Your task to perform on an android device: allow notifications from all sites in the chrome app Image 0: 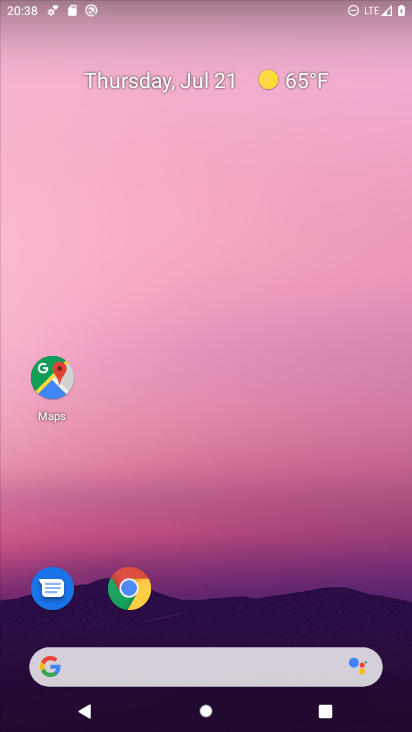
Step 0: drag from (157, 411) to (104, 55)
Your task to perform on an android device: allow notifications from all sites in the chrome app Image 1: 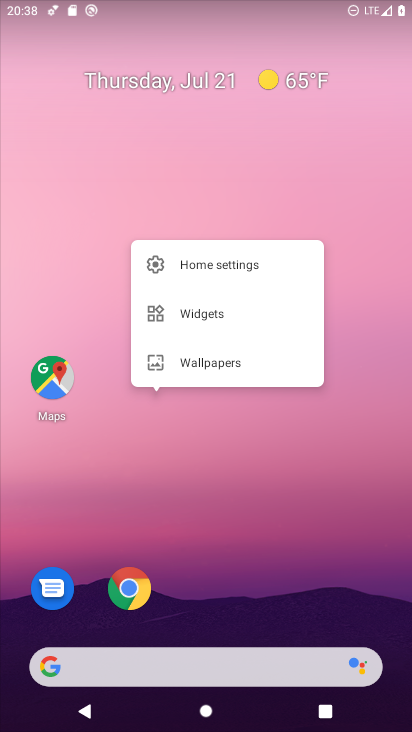
Step 1: click (171, 574)
Your task to perform on an android device: allow notifications from all sites in the chrome app Image 2: 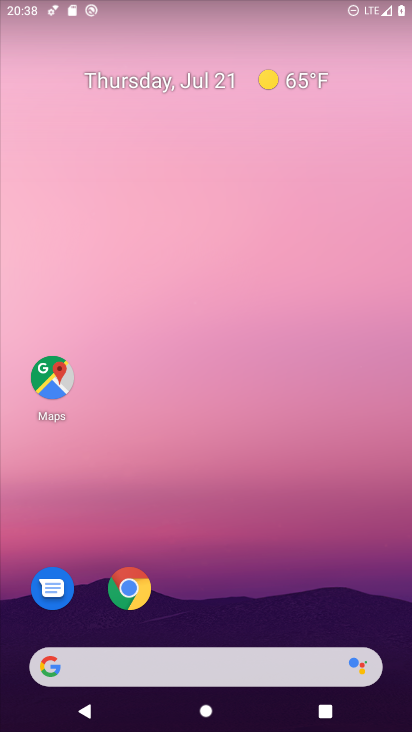
Step 2: drag from (239, 636) to (204, 65)
Your task to perform on an android device: allow notifications from all sites in the chrome app Image 3: 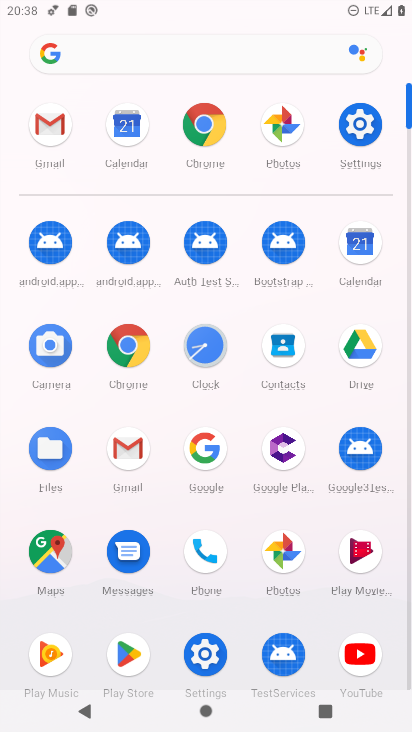
Step 3: click (219, 152)
Your task to perform on an android device: allow notifications from all sites in the chrome app Image 4: 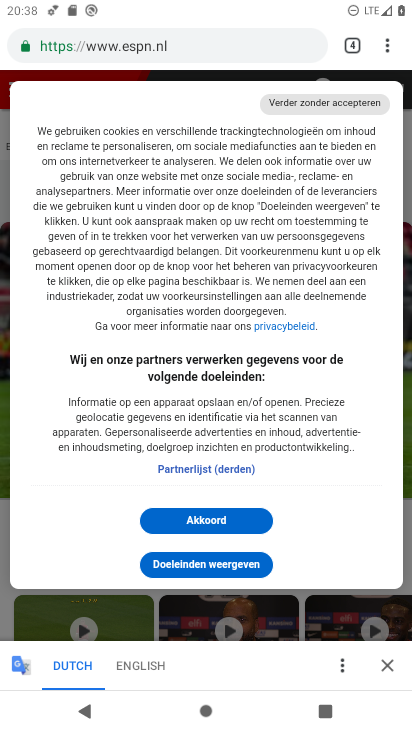
Step 4: drag from (389, 51) to (242, 553)
Your task to perform on an android device: allow notifications from all sites in the chrome app Image 5: 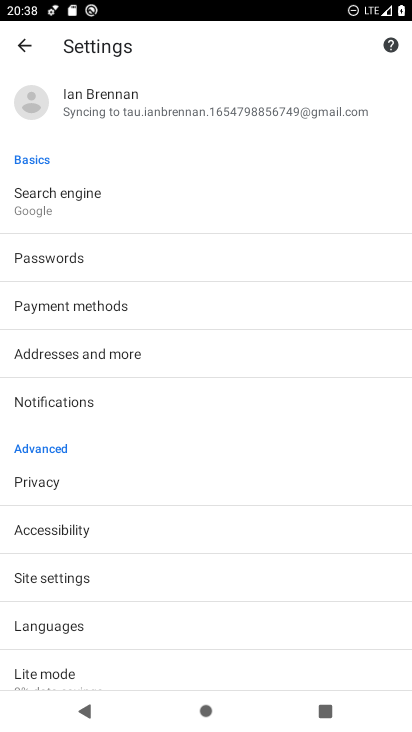
Step 5: click (37, 405)
Your task to perform on an android device: allow notifications from all sites in the chrome app Image 6: 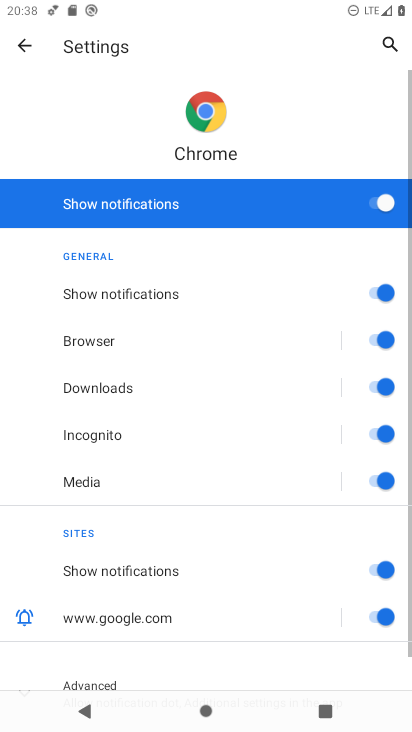
Step 6: click (13, 43)
Your task to perform on an android device: allow notifications from all sites in the chrome app Image 7: 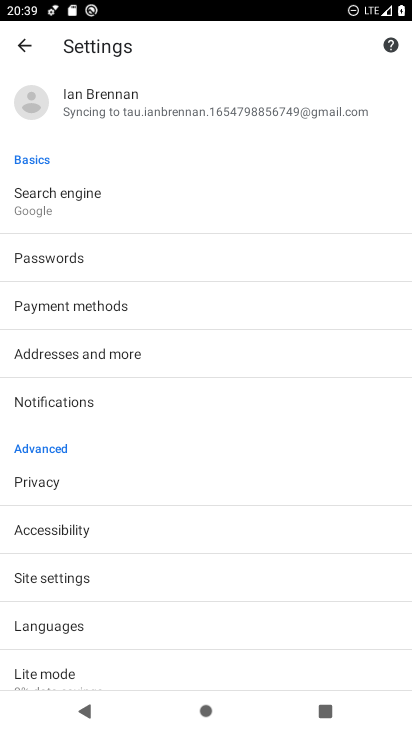
Step 7: click (89, 583)
Your task to perform on an android device: allow notifications from all sites in the chrome app Image 8: 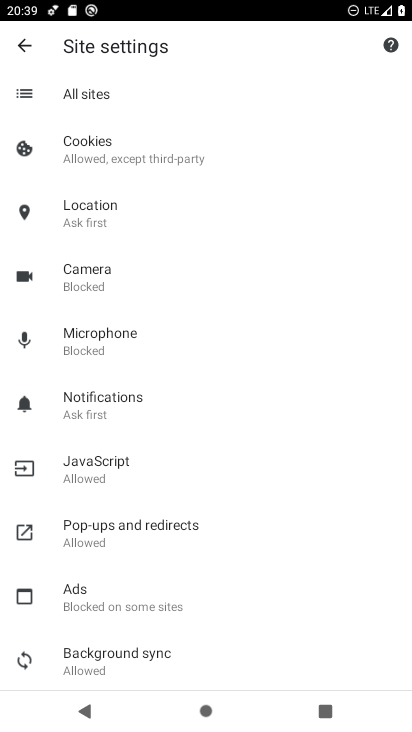
Step 8: click (96, 395)
Your task to perform on an android device: allow notifications from all sites in the chrome app Image 9: 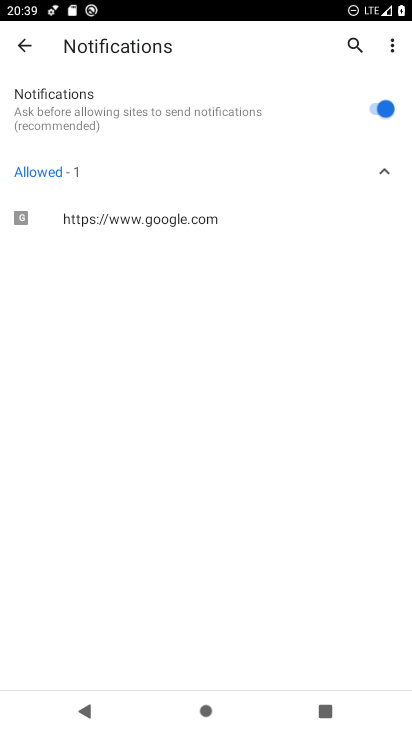
Step 9: task complete